Your task to perform on an android device: manage bookmarks in the chrome app Image 0: 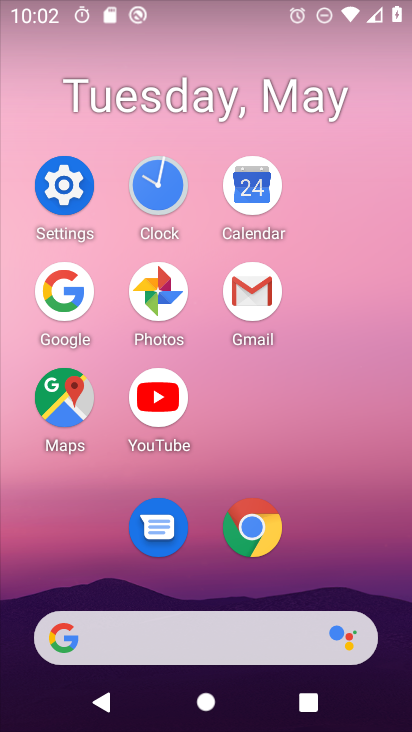
Step 0: click (259, 530)
Your task to perform on an android device: manage bookmarks in the chrome app Image 1: 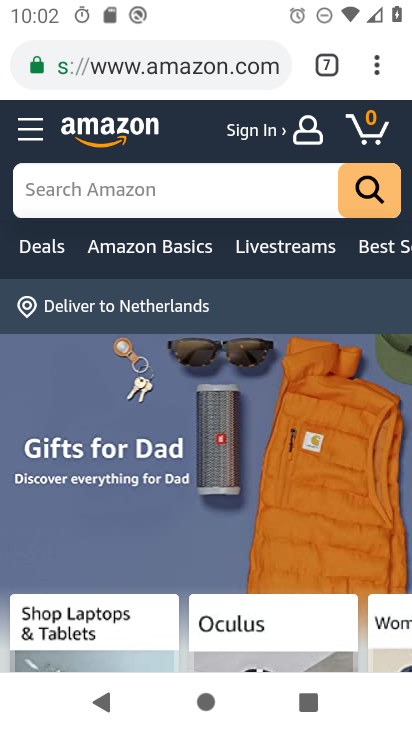
Step 1: click (380, 68)
Your task to perform on an android device: manage bookmarks in the chrome app Image 2: 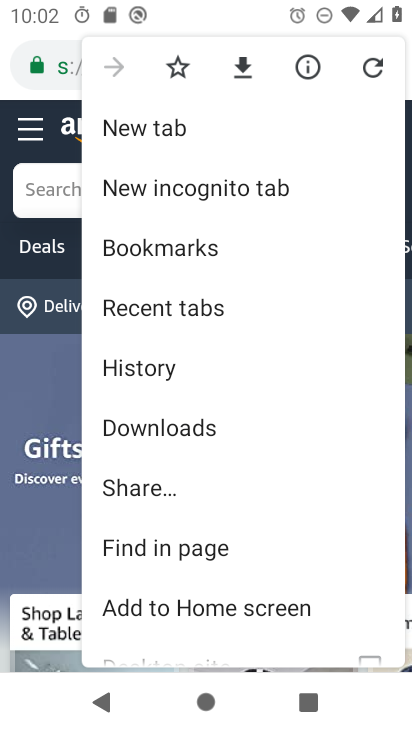
Step 2: click (179, 258)
Your task to perform on an android device: manage bookmarks in the chrome app Image 3: 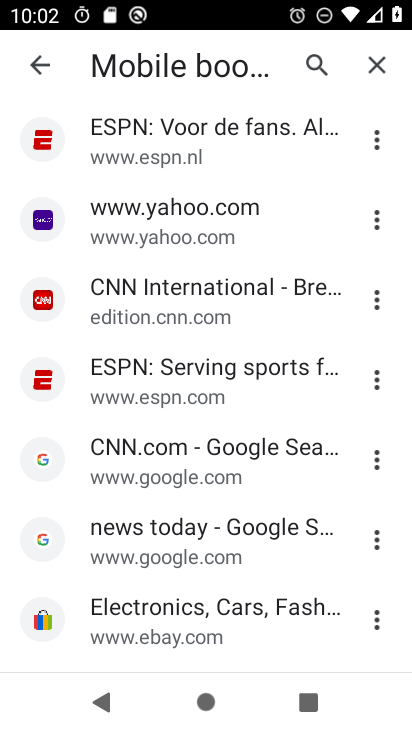
Step 3: click (376, 130)
Your task to perform on an android device: manage bookmarks in the chrome app Image 4: 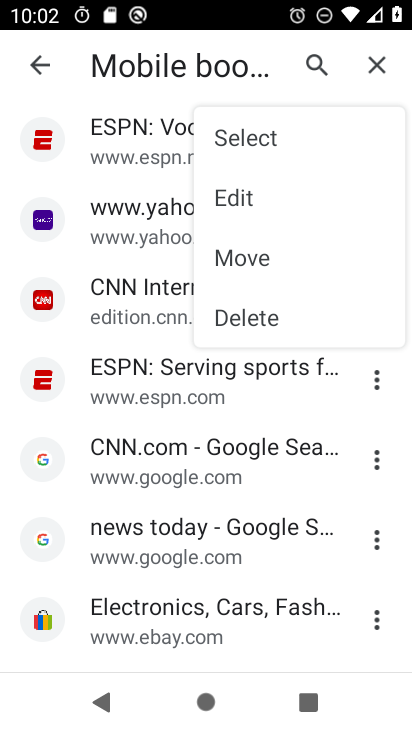
Step 4: click (270, 314)
Your task to perform on an android device: manage bookmarks in the chrome app Image 5: 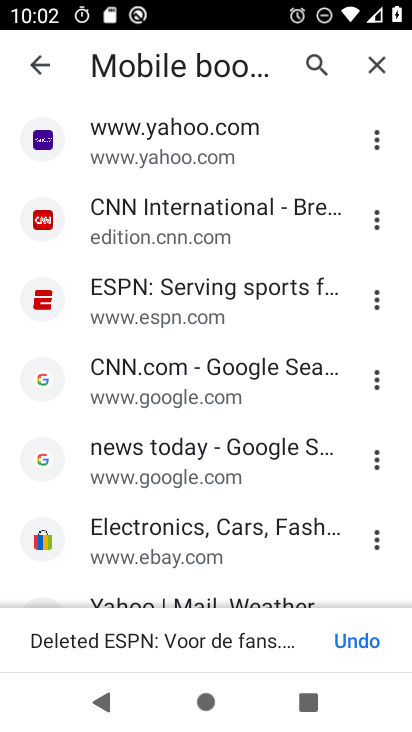
Step 5: task complete